Your task to perform on an android device: What is the recent news? Image 0: 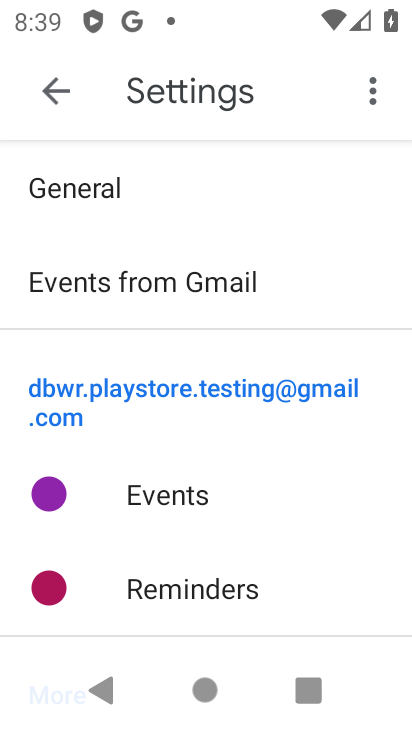
Step 0: task complete